Your task to perform on an android device: turn off picture-in-picture Image 0: 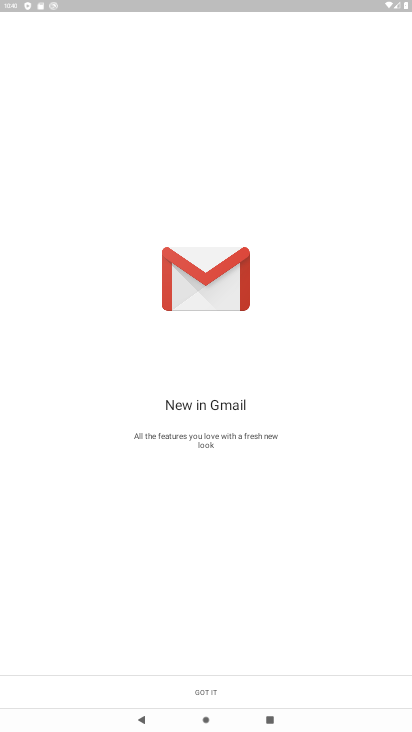
Step 0: press home button
Your task to perform on an android device: turn off picture-in-picture Image 1: 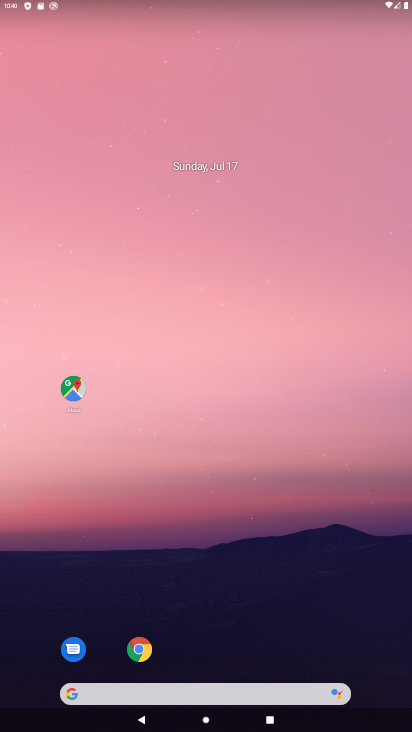
Step 1: drag from (168, 647) to (261, 147)
Your task to perform on an android device: turn off picture-in-picture Image 2: 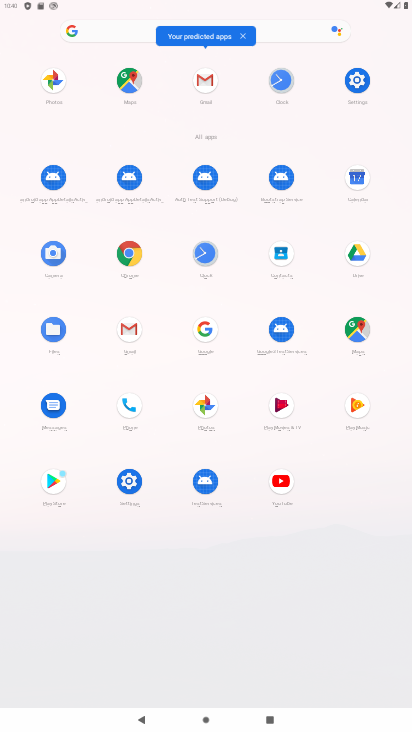
Step 2: click (132, 479)
Your task to perform on an android device: turn off picture-in-picture Image 3: 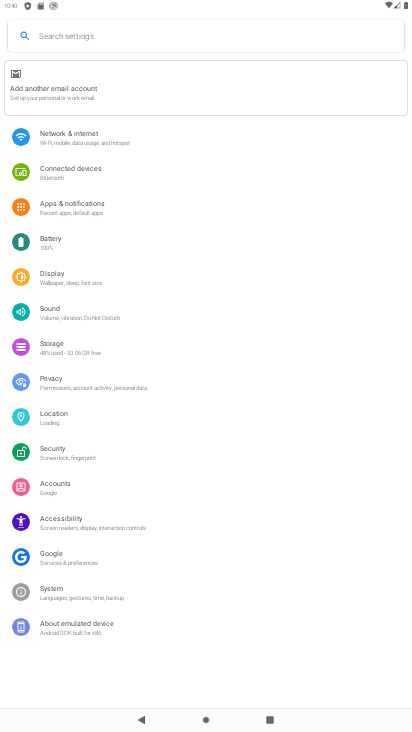
Step 3: click (111, 223)
Your task to perform on an android device: turn off picture-in-picture Image 4: 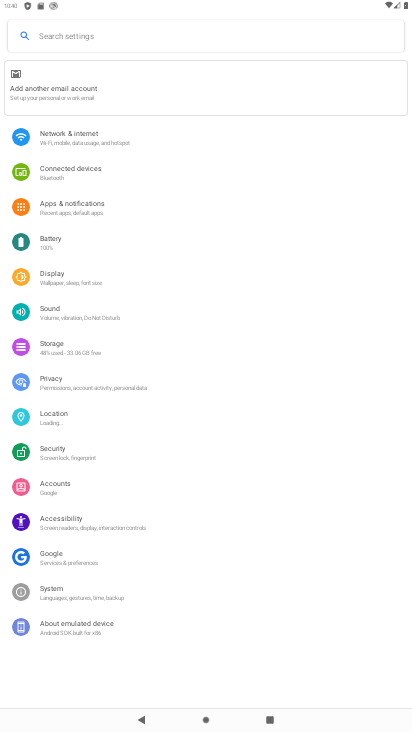
Step 4: press back button
Your task to perform on an android device: turn off picture-in-picture Image 5: 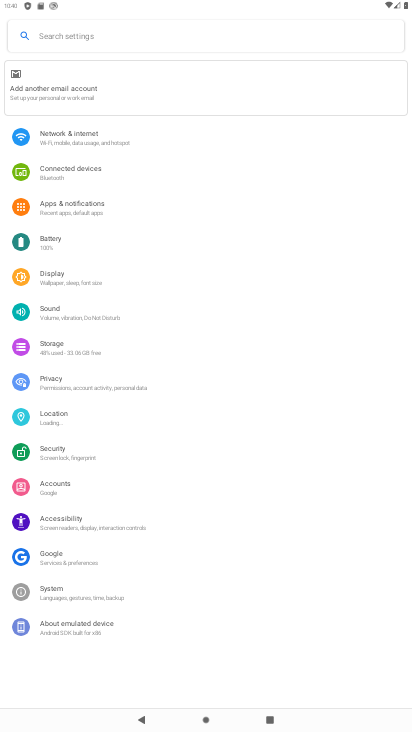
Step 5: click (89, 271)
Your task to perform on an android device: turn off picture-in-picture Image 6: 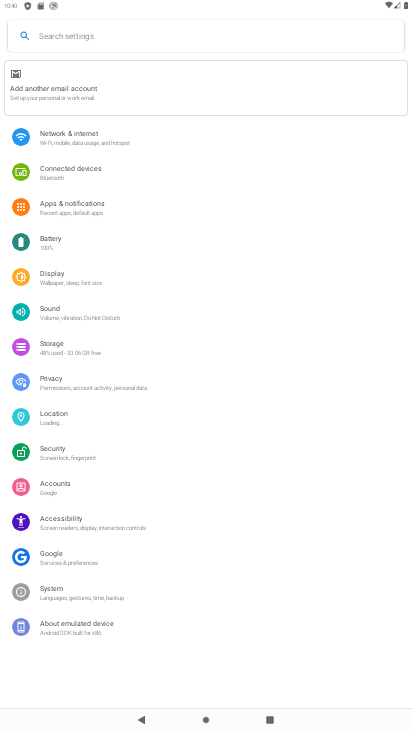
Step 6: click (96, 217)
Your task to perform on an android device: turn off picture-in-picture Image 7: 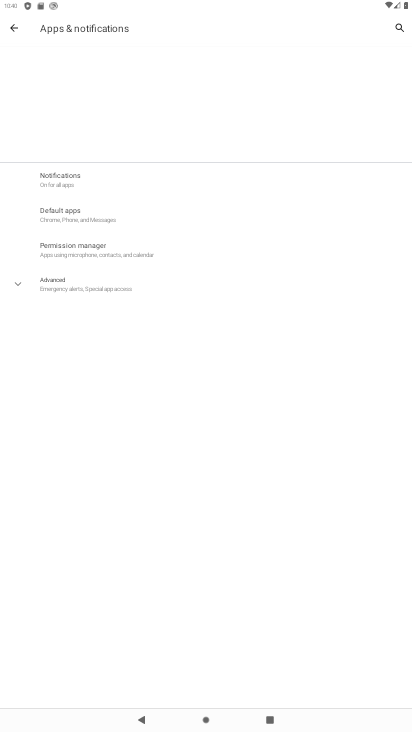
Step 7: click (133, 283)
Your task to perform on an android device: turn off picture-in-picture Image 8: 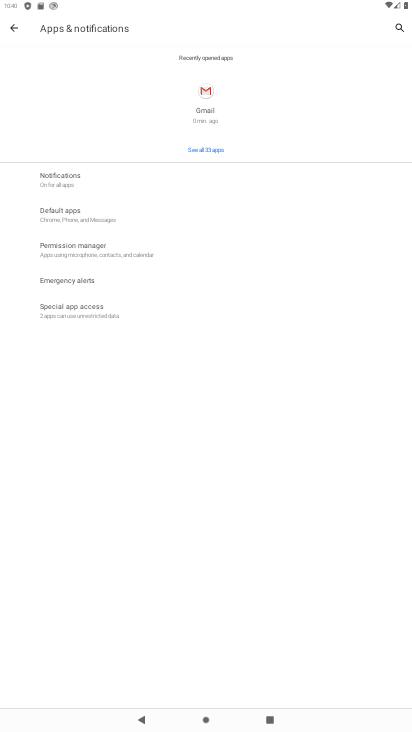
Step 8: click (95, 328)
Your task to perform on an android device: turn off picture-in-picture Image 9: 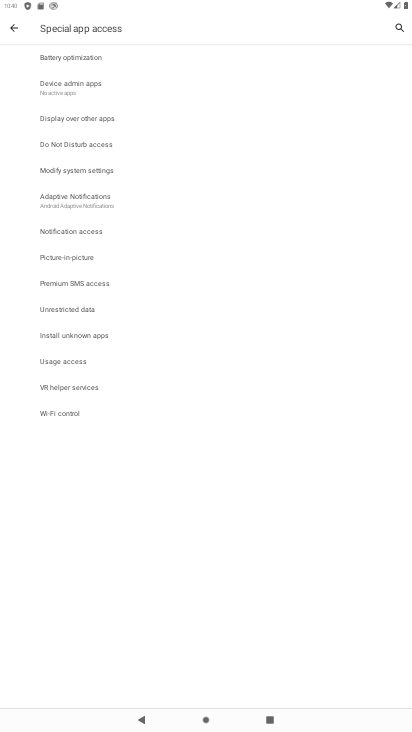
Step 9: click (98, 254)
Your task to perform on an android device: turn off picture-in-picture Image 10: 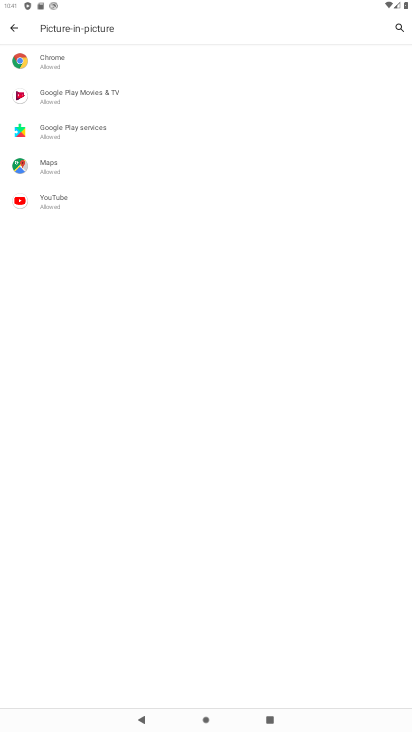
Step 10: click (136, 66)
Your task to perform on an android device: turn off picture-in-picture Image 11: 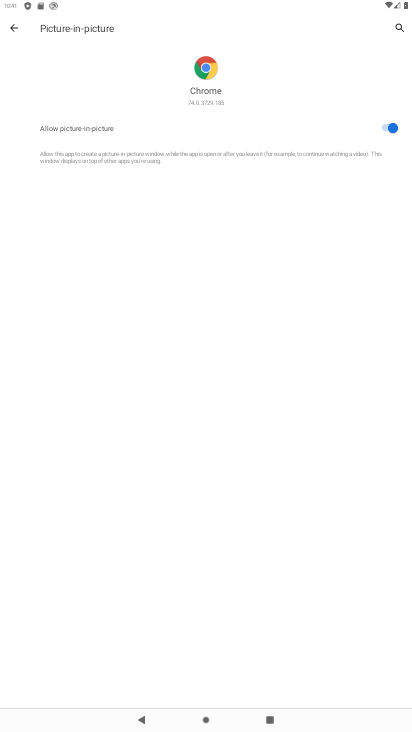
Step 11: click (371, 123)
Your task to perform on an android device: turn off picture-in-picture Image 12: 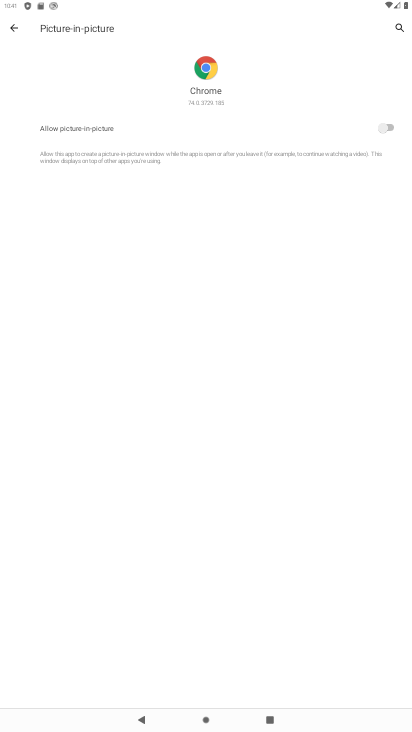
Step 12: press back button
Your task to perform on an android device: turn off picture-in-picture Image 13: 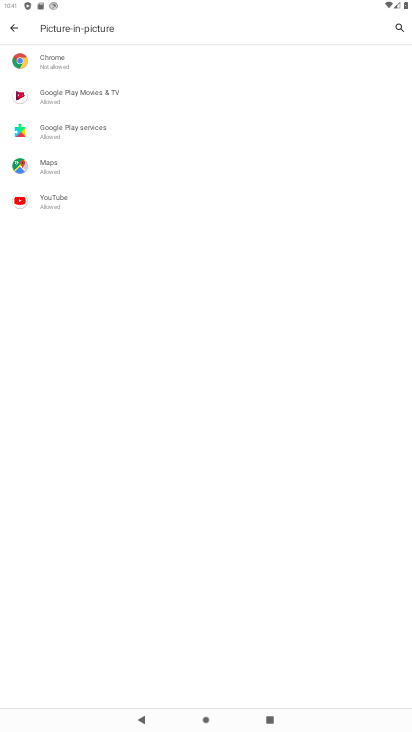
Step 13: click (153, 96)
Your task to perform on an android device: turn off picture-in-picture Image 14: 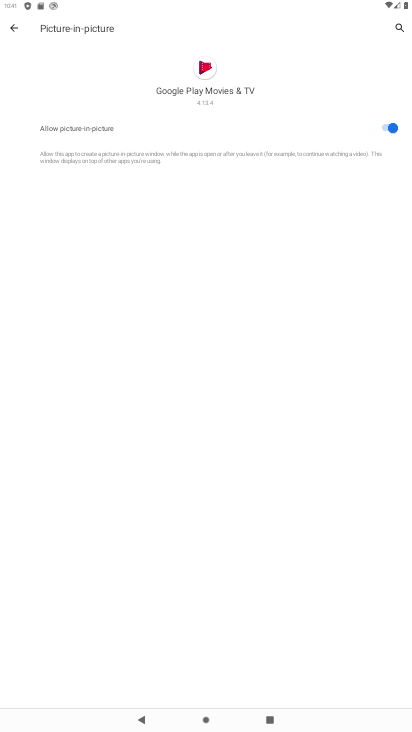
Step 14: click (380, 117)
Your task to perform on an android device: turn off picture-in-picture Image 15: 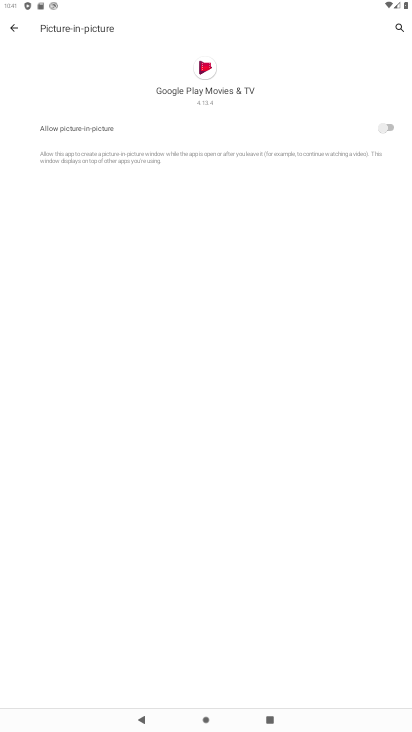
Step 15: press back button
Your task to perform on an android device: turn off picture-in-picture Image 16: 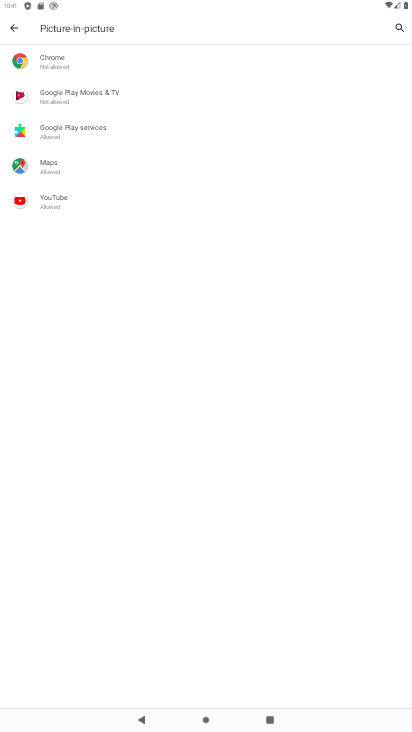
Step 16: click (136, 136)
Your task to perform on an android device: turn off picture-in-picture Image 17: 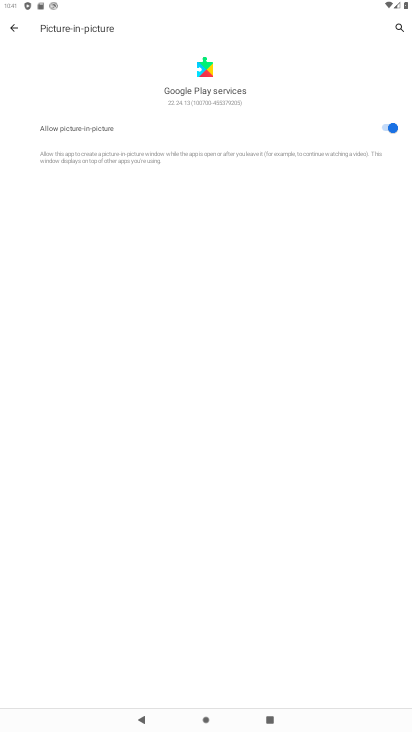
Step 17: click (387, 125)
Your task to perform on an android device: turn off picture-in-picture Image 18: 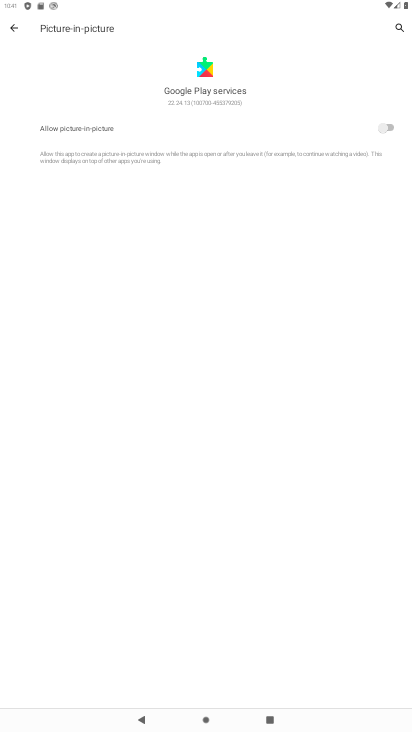
Step 18: press back button
Your task to perform on an android device: turn off picture-in-picture Image 19: 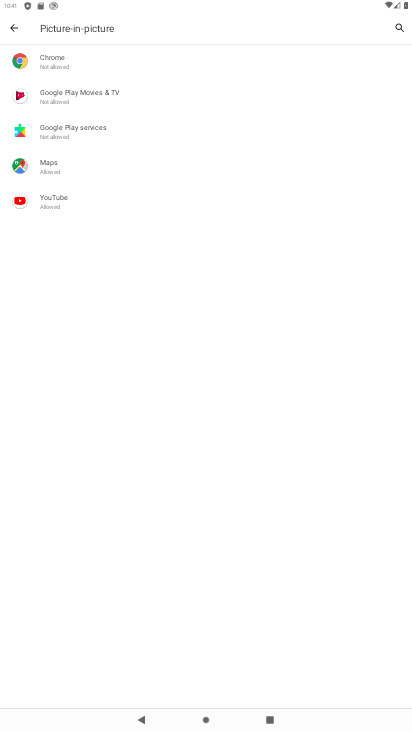
Step 19: click (95, 175)
Your task to perform on an android device: turn off picture-in-picture Image 20: 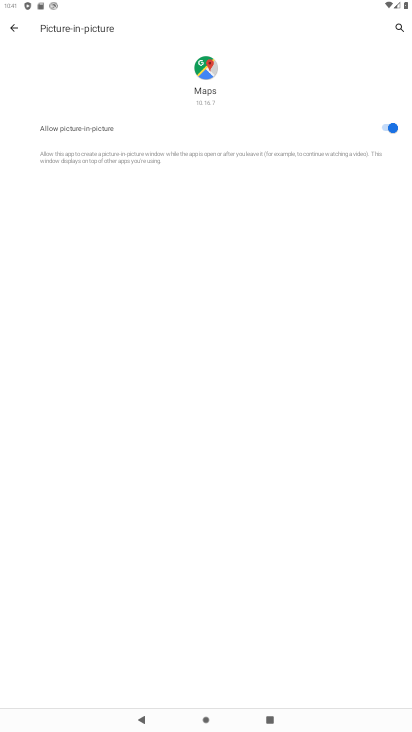
Step 20: click (385, 128)
Your task to perform on an android device: turn off picture-in-picture Image 21: 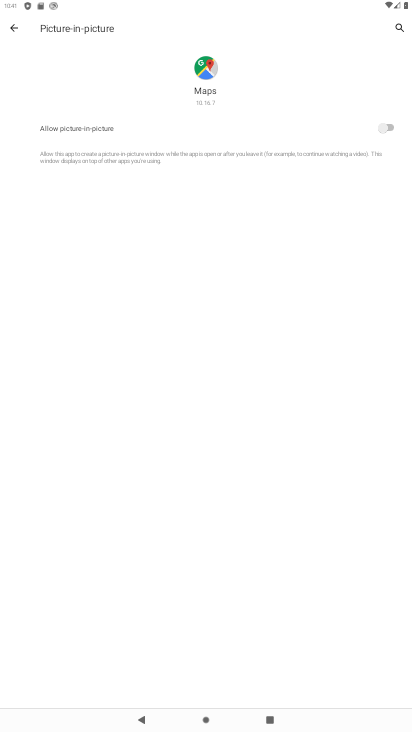
Step 21: press back button
Your task to perform on an android device: turn off picture-in-picture Image 22: 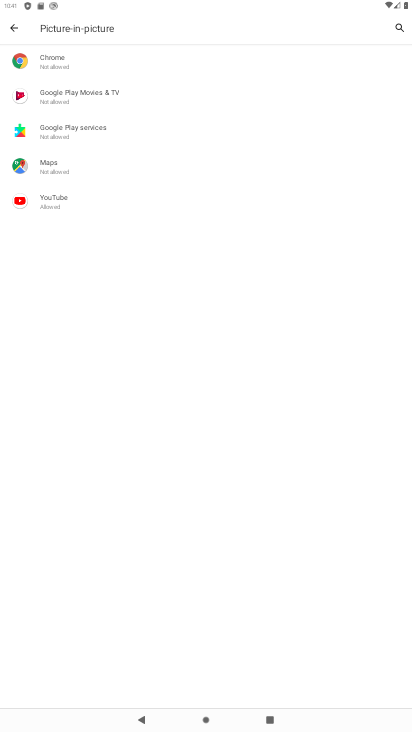
Step 22: click (93, 196)
Your task to perform on an android device: turn off picture-in-picture Image 23: 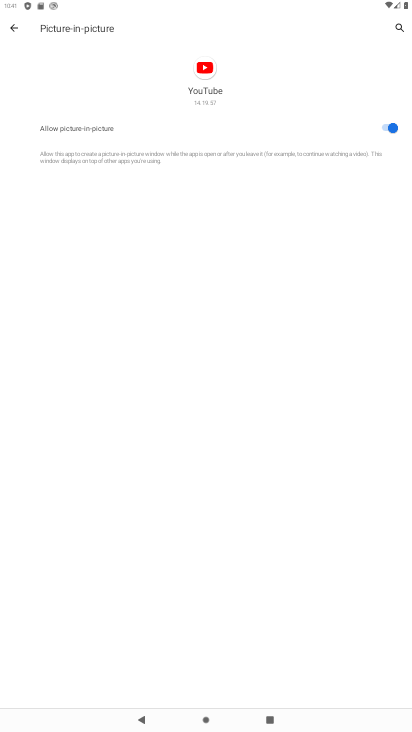
Step 23: click (386, 121)
Your task to perform on an android device: turn off picture-in-picture Image 24: 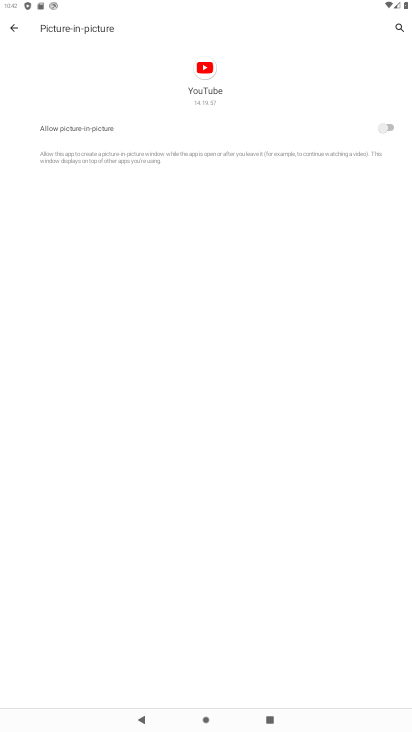
Step 24: task complete